Your task to perform on an android device: Go to Android settings Image 0: 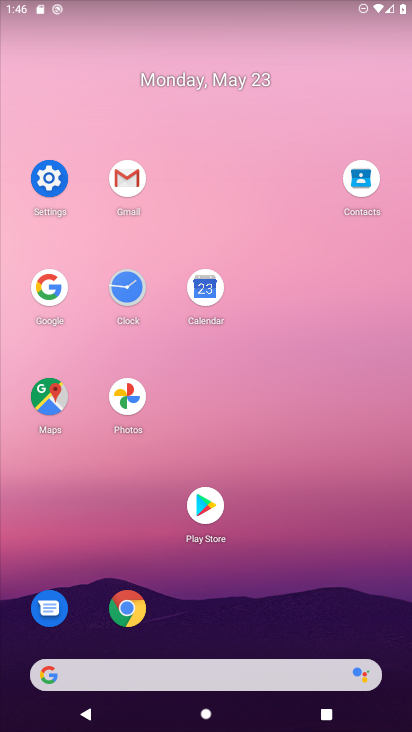
Step 0: click (62, 167)
Your task to perform on an android device: Go to Android settings Image 1: 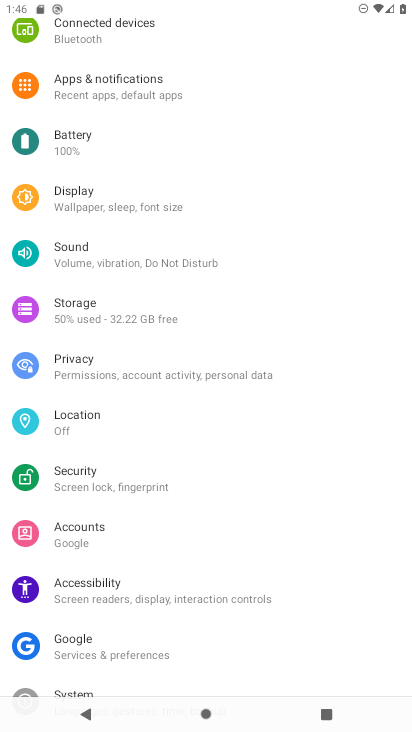
Step 1: task complete